Your task to perform on an android device: toggle show notifications on the lock screen Image 0: 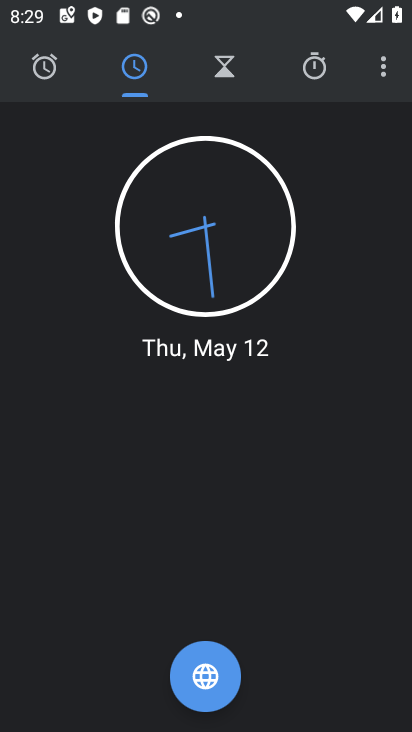
Step 0: press home button
Your task to perform on an android device: toggle show notifications on the lock screen Image 1: 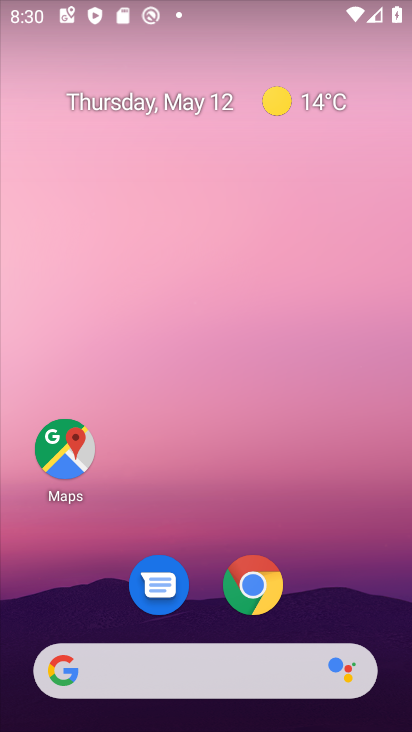
Step 1: drag from (320, 587) to (231, 33)
Your task to perform on an android device: toggle show notifications on the lock screen Image 2: 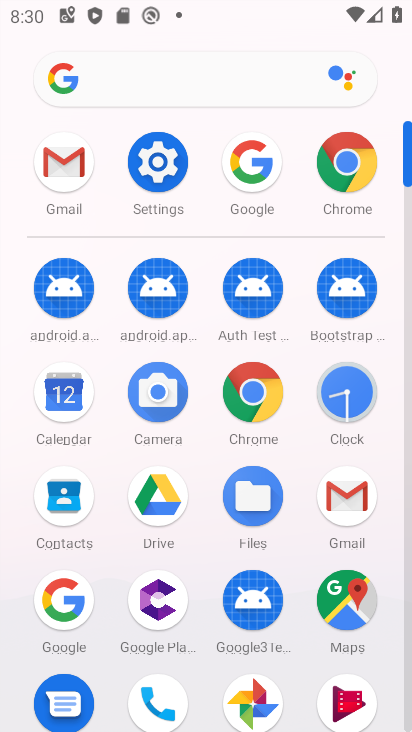
Step 2: click (164, 144)
Your task to perform on an android device: toggle show notifications on the lock screen Image 3: 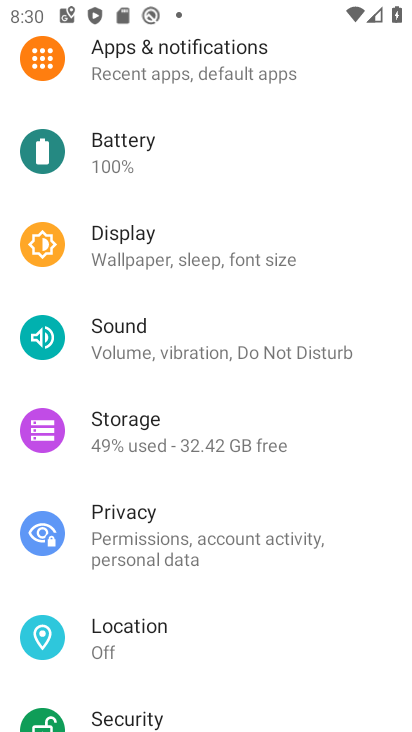
Step 3: click (219, 75)
Your task to perform on an android device: toggle show notifications on the lock screen Image 4: 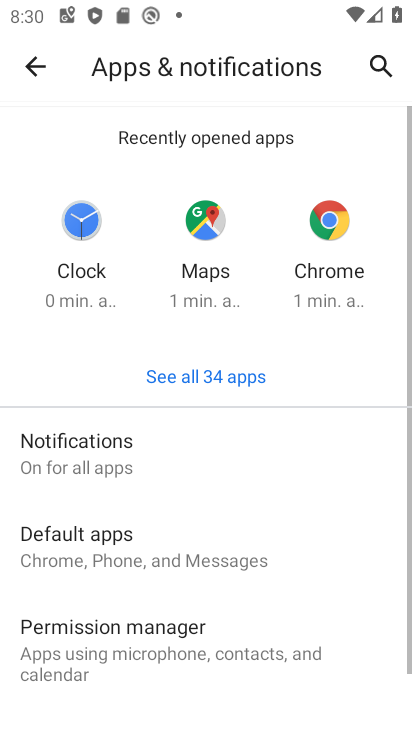
Step 4: click (179, 453)
Your task to perform on an android device: toggle show notifications on the lock screen Image 5: 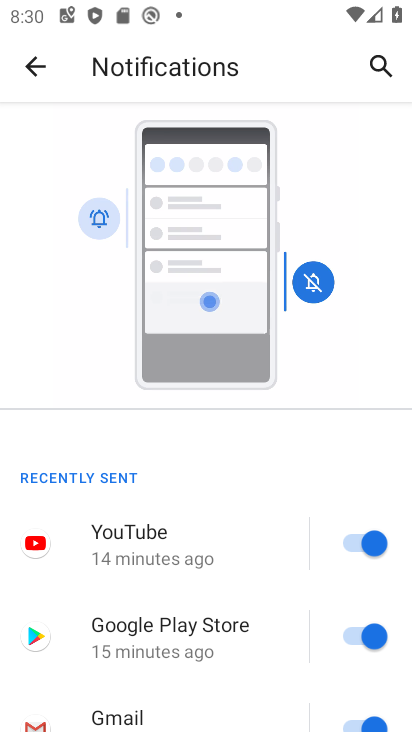
Step 5: drag from (199, 572) to (197, 121)
Your task to perform on an android device: toggle show notifications on the lock screen Image 6: 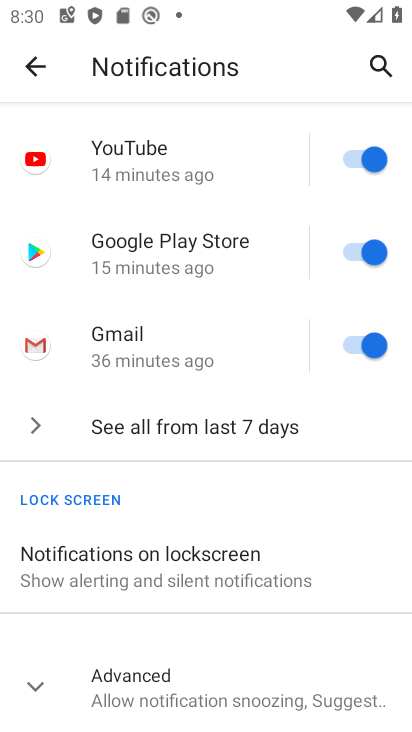
Step 6: click (224, 559)
Your task to perform on an android device: toggle show notifications on the lock screen Image 7: 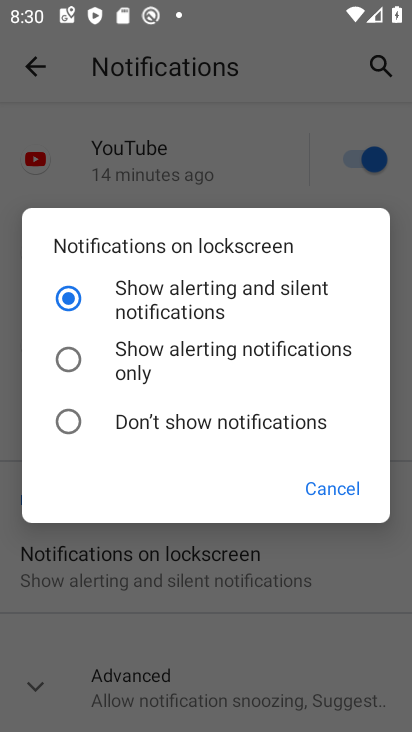
Step 7: click (68, 414)
Your task to perform on an android device: toggle show notifications on the lock screen Image 8: 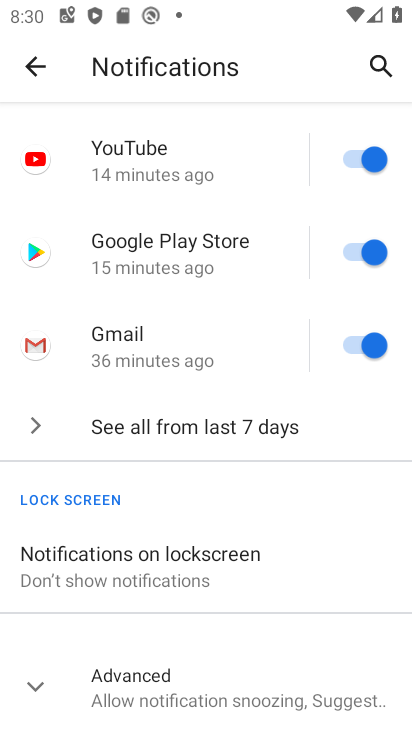
Step 8: task complete